Your task to perform on an android device: Go to notification settings Image 0: 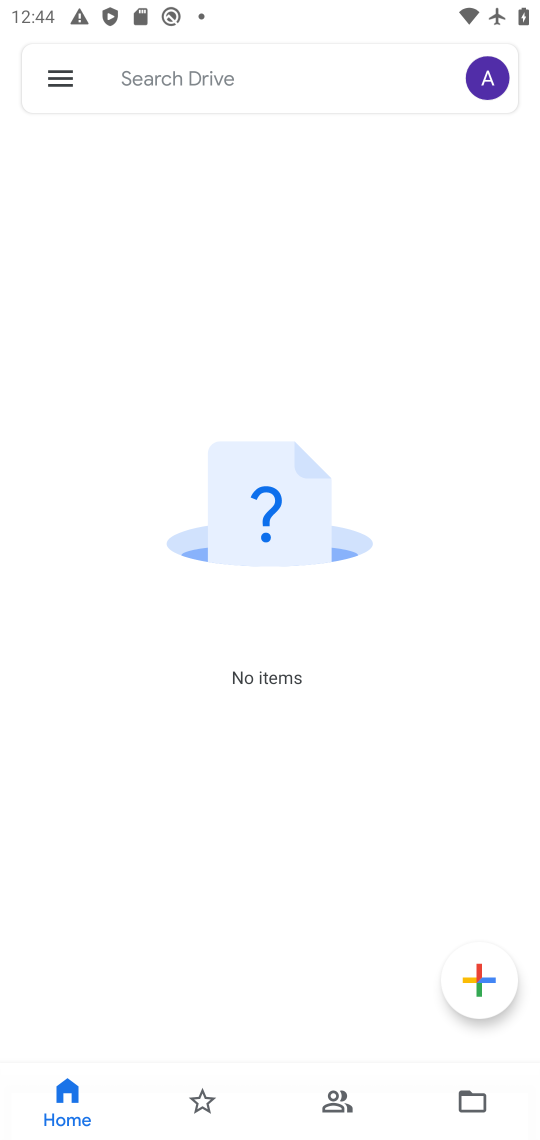
Step 0: press back button
Your task to perform on an android device: Go to notification settings Image 1: 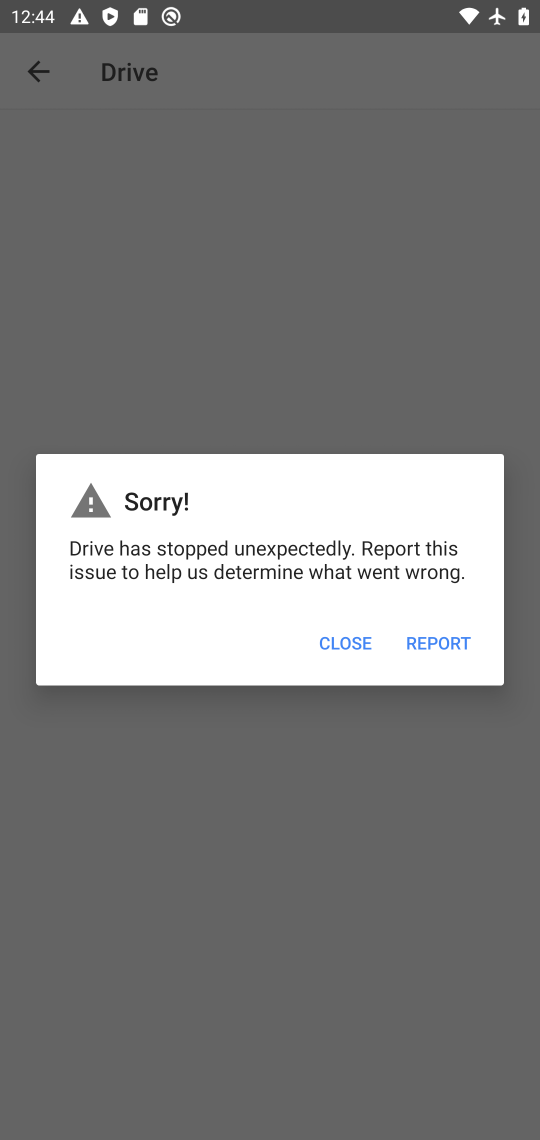
Step 1: press home button
Your task to perform on an android device: Go to notification settings Image 2: 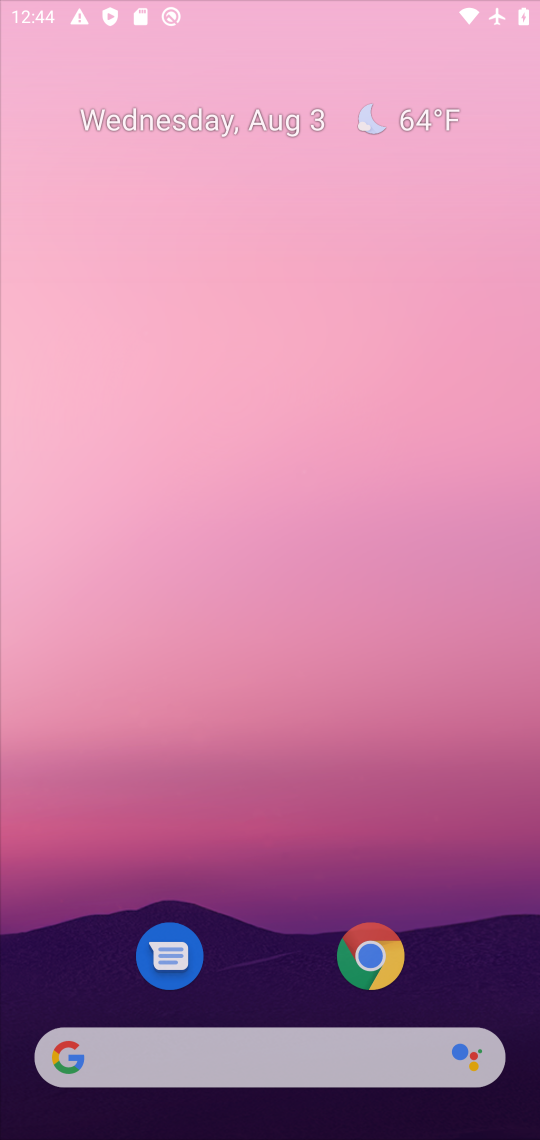
Step 2: press home button
Your task to perform on an android device: Go to notification settings Image 3: 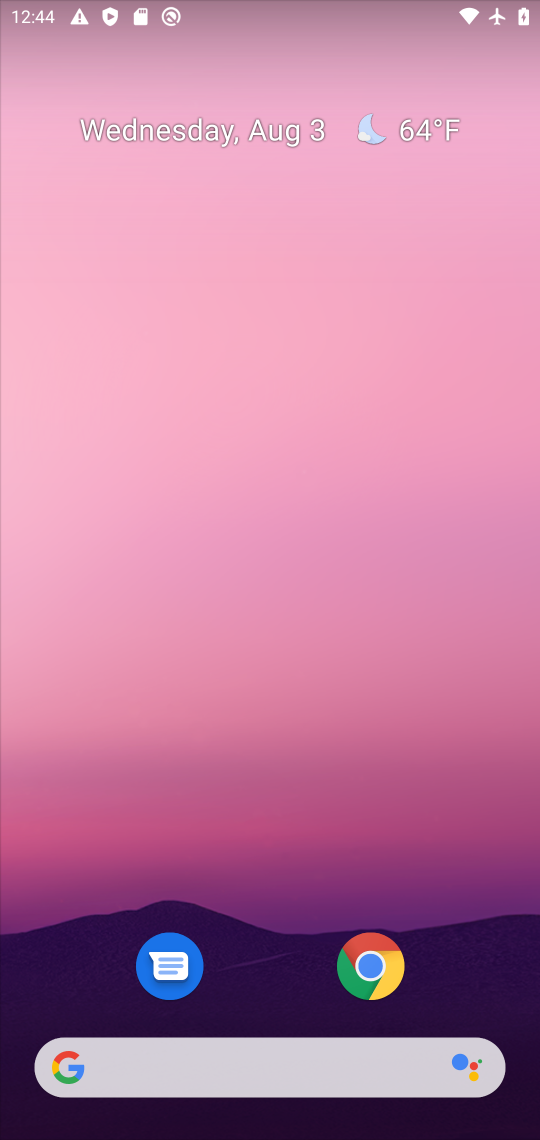
Step 3: drag from (252, 973) to (247, 248)
Your task to perform on an android device: Go to notification settings Image 4: 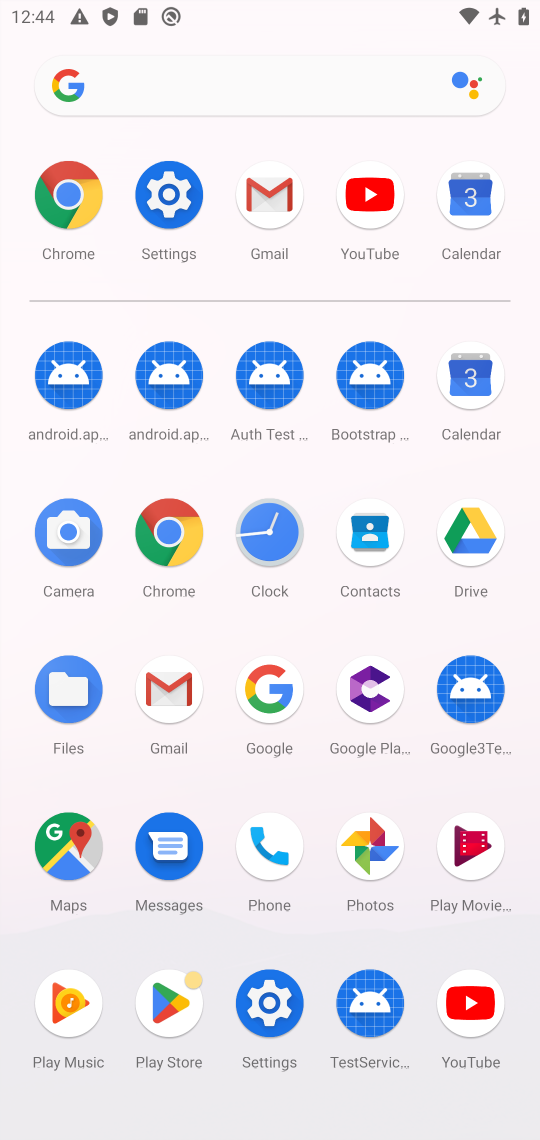
Step 4: click (182, 214)
Your task to perform on an android device: Go to notification settings Image 5: 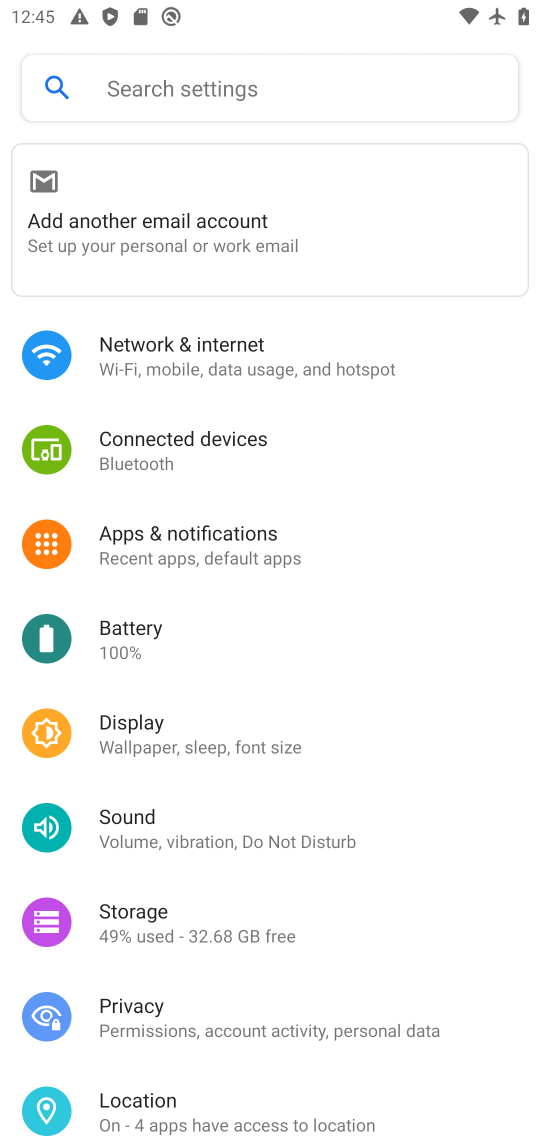
Step 5: click (198, 550)
Your task to perform on an android device: Go to notification settings Image 6: 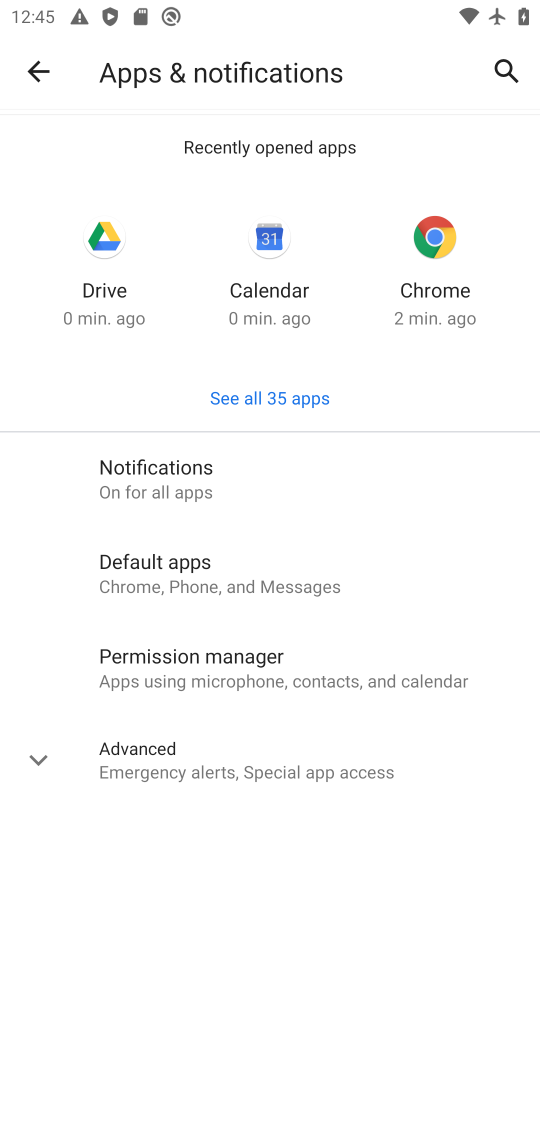
Step 6: task complete